Your task to perform on an android device: open chrome privacy settings Image 0: 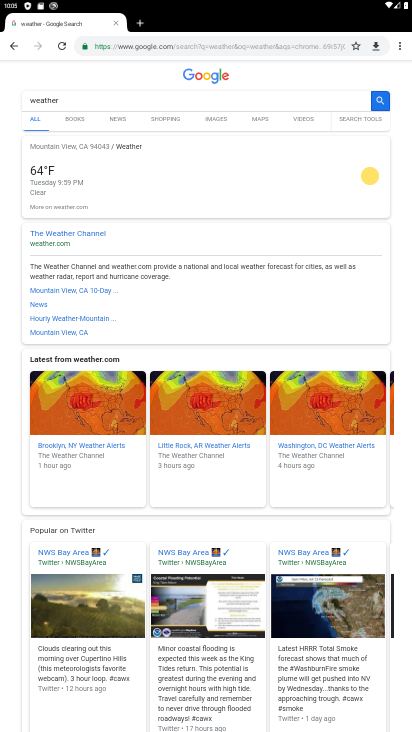
Step 0: press home button
Your task to perform on an android device: open chrome privacy settings Image 1: 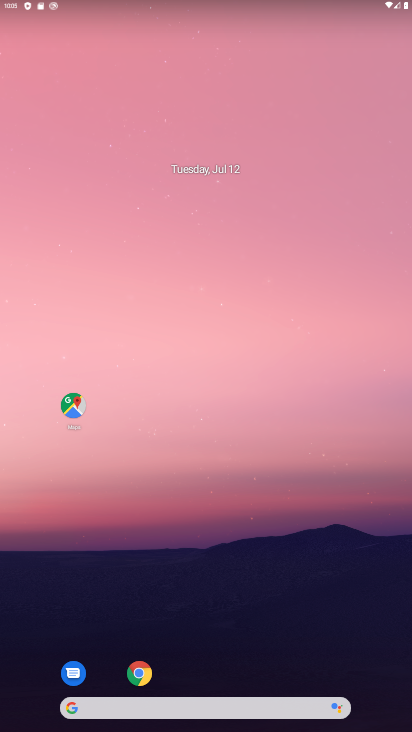
Step 1: drag from (255, 493) to (165, 77)
Your task to perform on an android device: open chrome privacy settings Image 2: 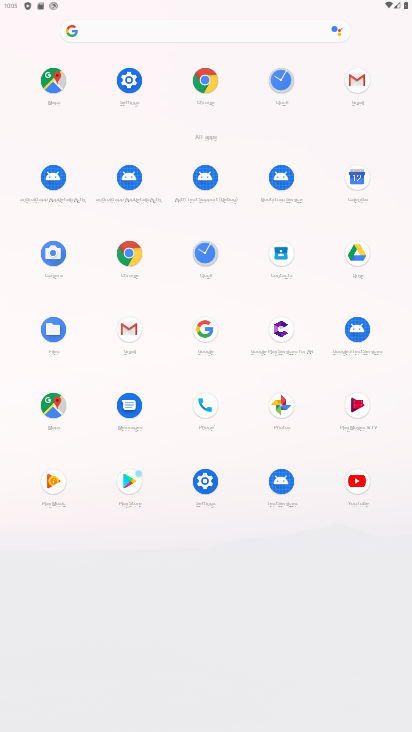
Step 2: click (128, 81)
Your task to perform on an android device: open chrome privacy settings Image 3: 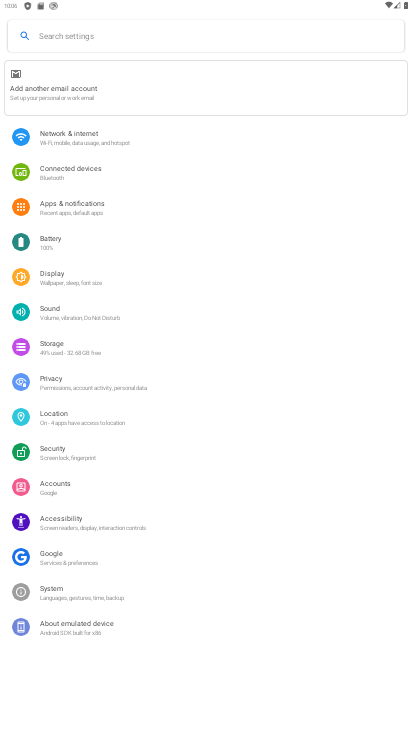
Step 3: click (68, 381)
Your task to perform on an android device: open chrome privacy settings Image 4: 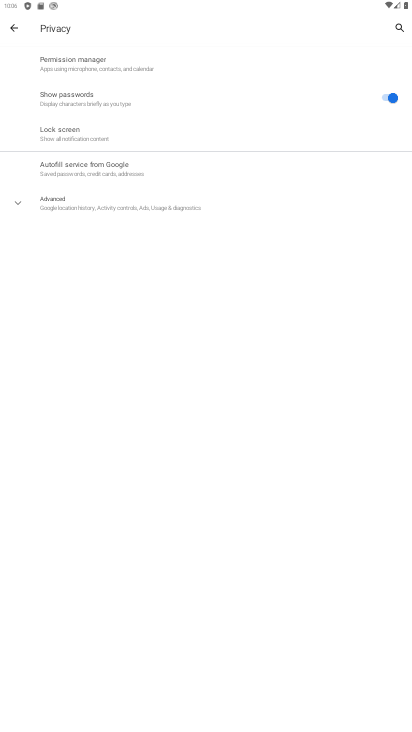
Step 4: task complete